Your task to perform on an android device: open chrome and create a bookmark for the current page Image 0: 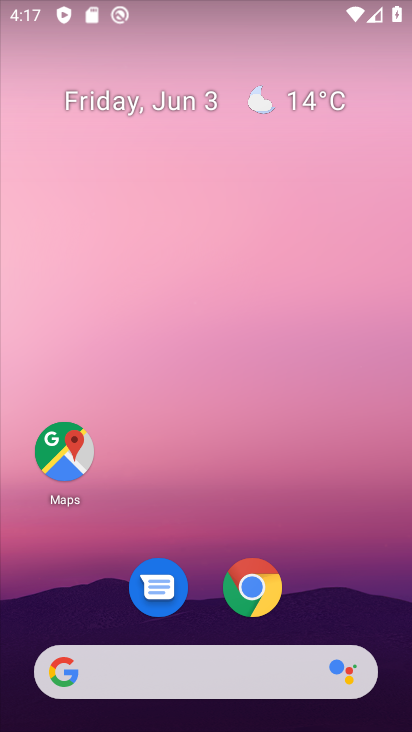
Step 0: click (258, 575)
Your task to perform on an android device: open chrome and create a bookmark for the current page Image 1: 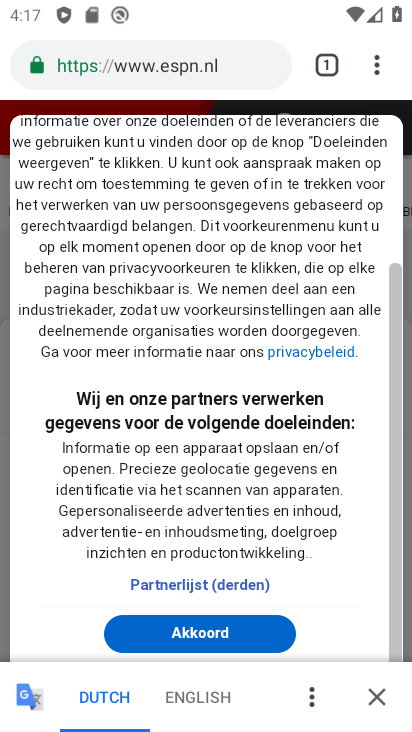
Step 1: click (380, 65)
Your task to perform on an android device: open chrome and create a bookmark for the current page Image 2: 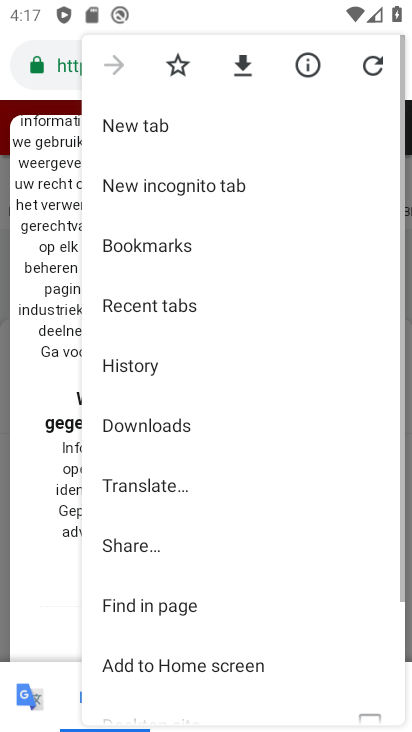
Step 2: click (164, 66)
Your task to perform on an android device: open chrome and create a bookmark for the current page Image 3: 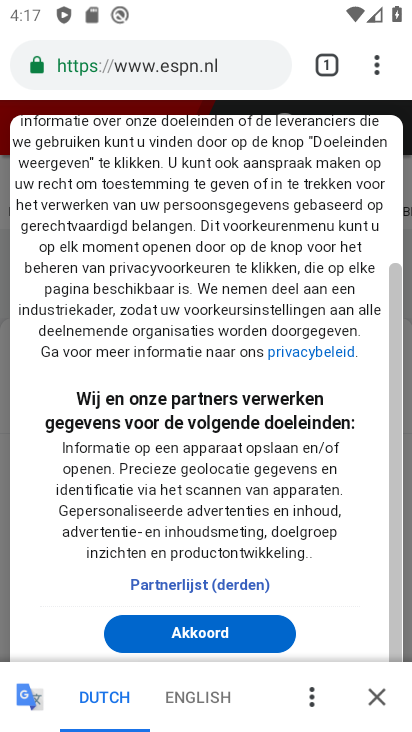
Step 3: task complete